Your task to perform on an android device: turn off location Image 0: 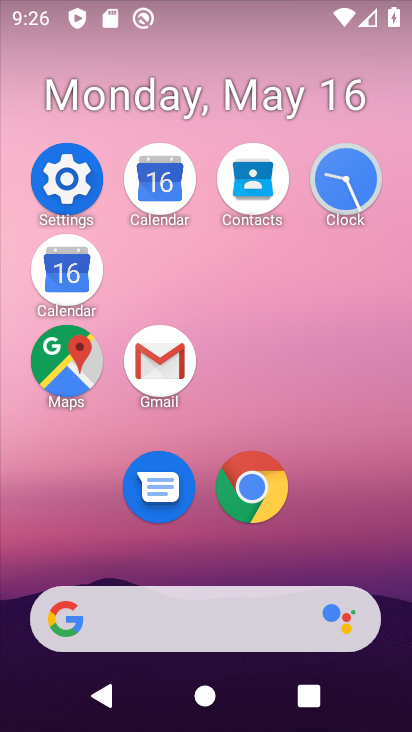
Step 0: click (87, 172)
Your task to perform on an android device: turn off location Image 1: 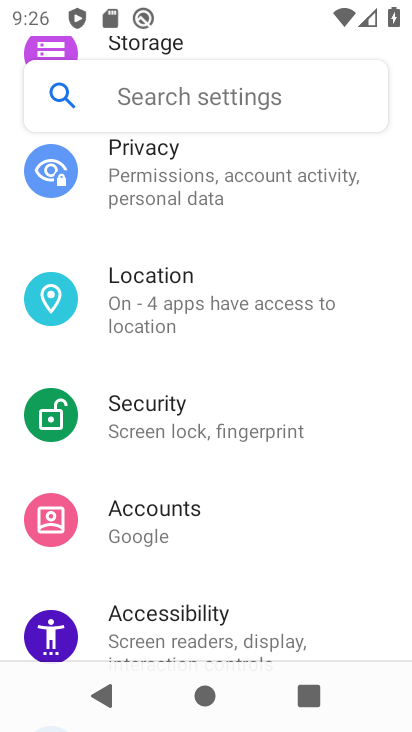
Step 1: click (269, 265)
Your task to perform on an android device: turn off location Image 2: 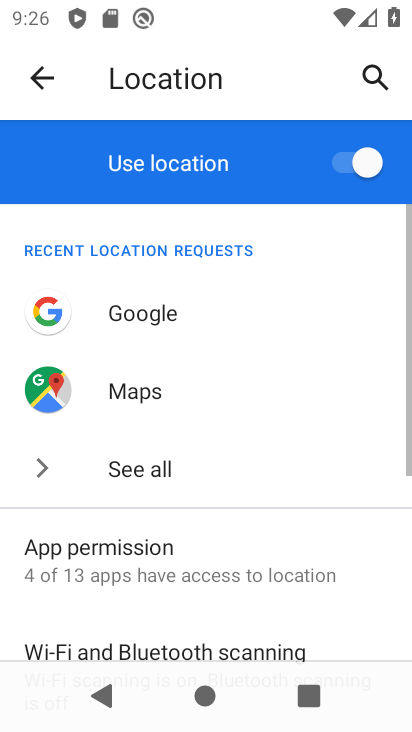
Step 2: click (366, 162)
Your task to perform on an android device: turn off location Image 3: 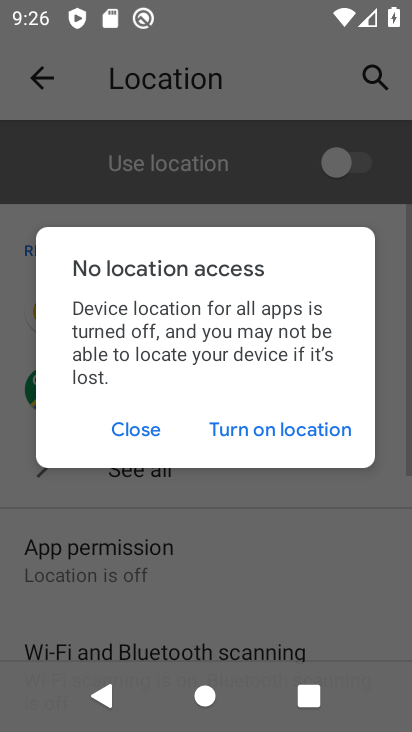
Step 3: task complete